Your task to perform on an android device: turn on bluetooth scan Image 0: 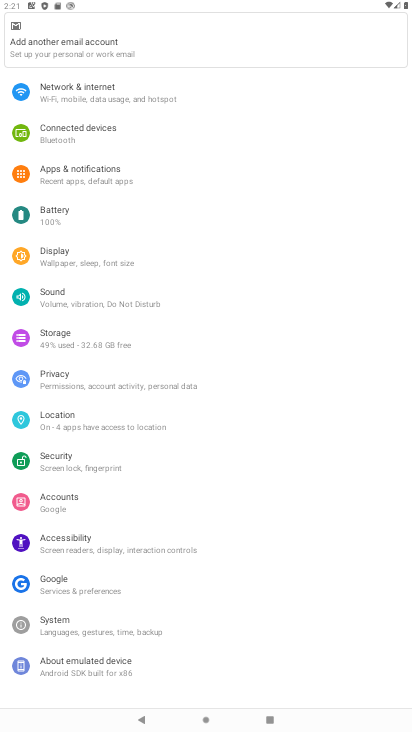
Step 0: press home button
Your task to perform on an android device: turn on bluetooth scan Image 1: 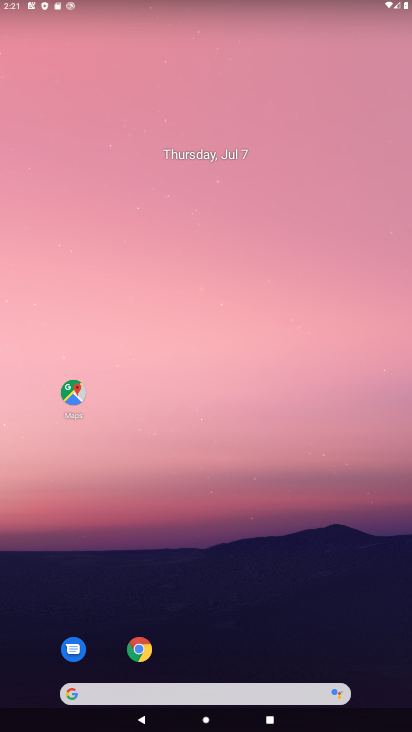
Step 1: drag from (221, 677) to (172, 3)
Your task to perform on an android device: turn on bluetooth scan Image 2: 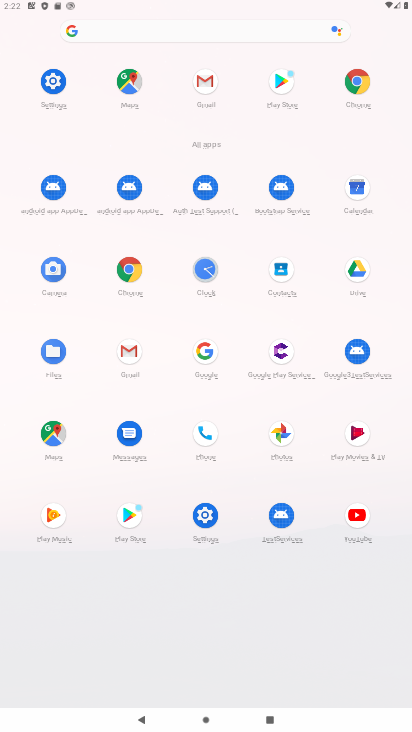
Step 2: click (56, 76)
Your task to perform on an android device: turn on bluetooth scan Image 3: 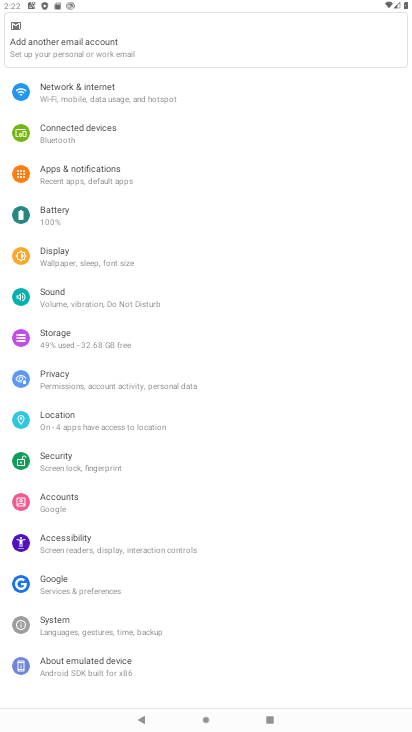
Step 3: click (66, 427)
Your task to perform on an android device: turn on bluetooth scan Image 4: 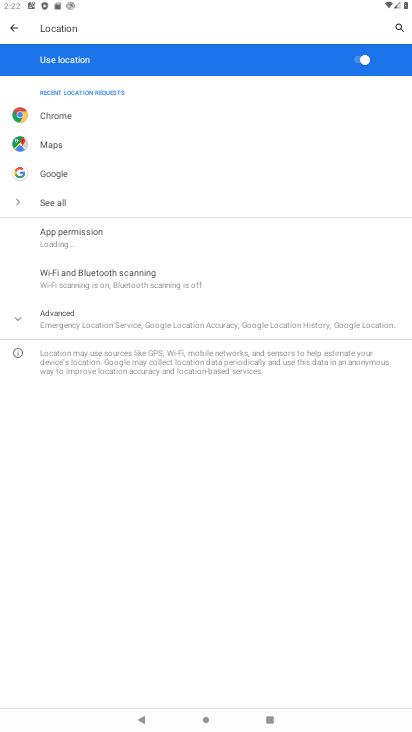
Step 4: click (121, 283)
Your task to perform on an android device: turn on bluetooth scan Image 5: 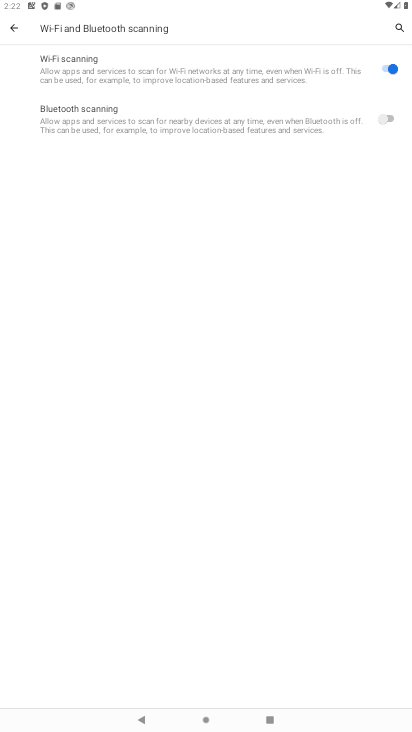
Step 5: click (119, 114)
Your task to perform on an android device: turn on bluetooth scan Image 6: 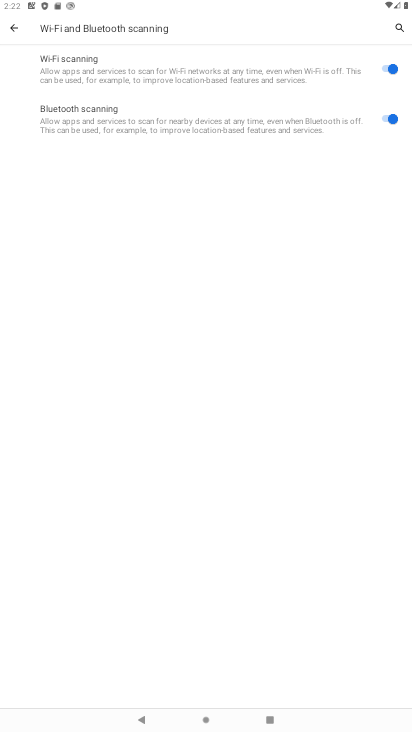
Step 6: task complete